Your task to perform on an android device: turn on priority inbox in the gmail app Image 0: 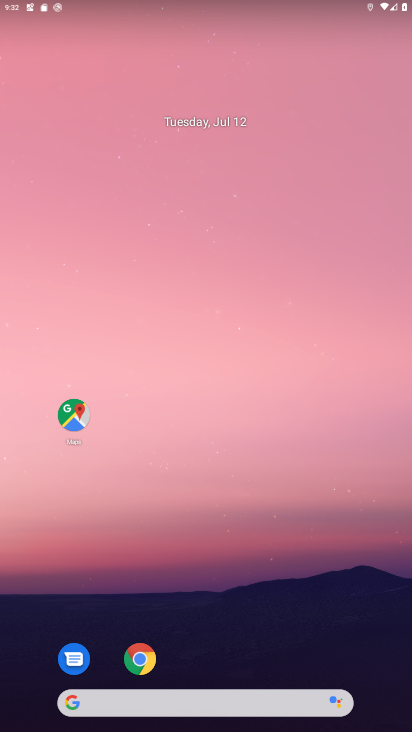
Step 0: drag from (254, 649) to (282, 33)
Your task to perform on an android device: turn on priority inbox in the gmail app Image 1: 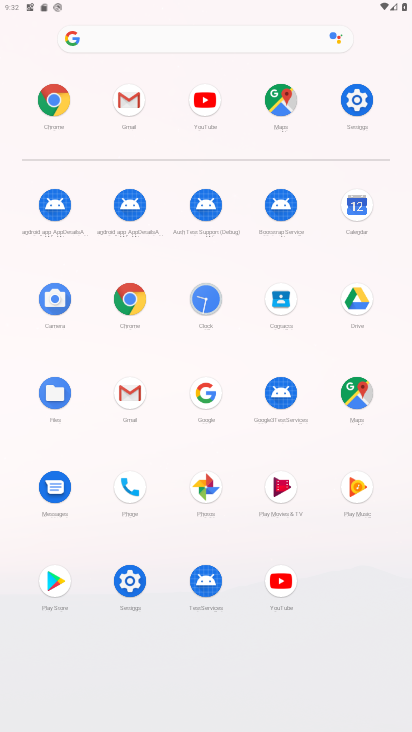
Step 1: click (130, 394)
Your task to perform on an android device: turn on priority inbox in the gmail app Image 2: 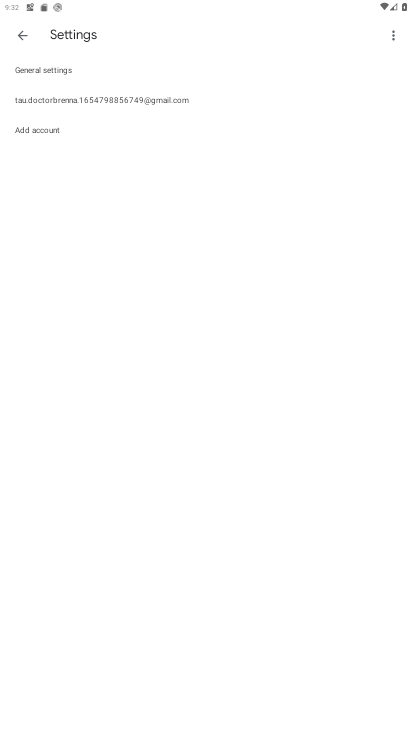
Step 2: click (32, 91)
Your task to perform on an android device: turn on priority inbox in the gmail app Image 3: 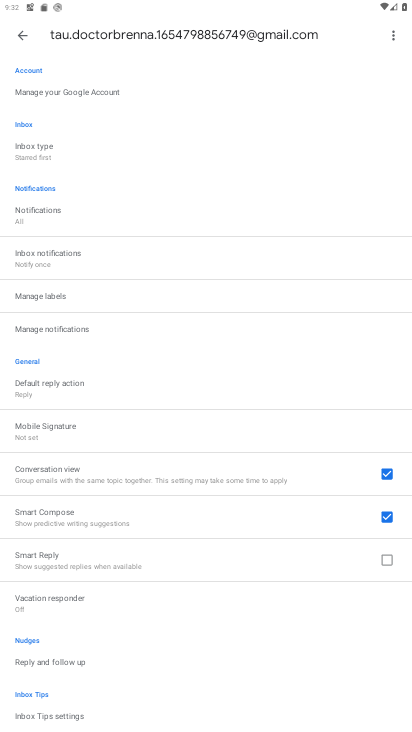
Step 3: click (32, 146)
Your task to perform on an android device: turn on priority inbox in the gmail app Image 4: 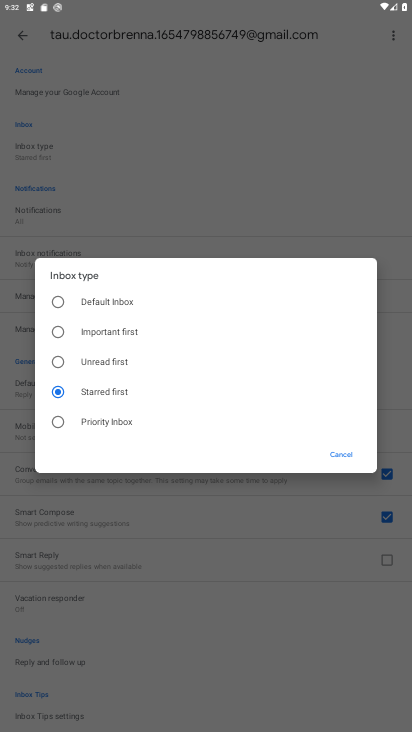
Step 4: click (53, 419)
Your task to perform on an android device: turn on priority inbox in the gmail app Image 5: 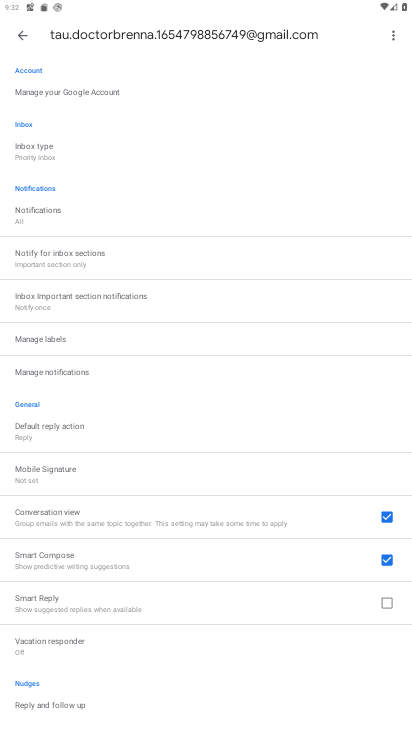
Step 5: task complete